Your task to perform on an android device: Open the map Image 0: 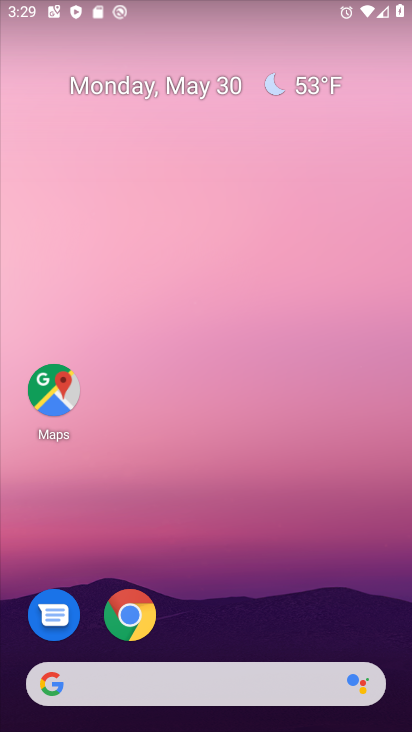
Step 0: click (57, 409)
Your task to perform on an android device: Open the map Image 1: 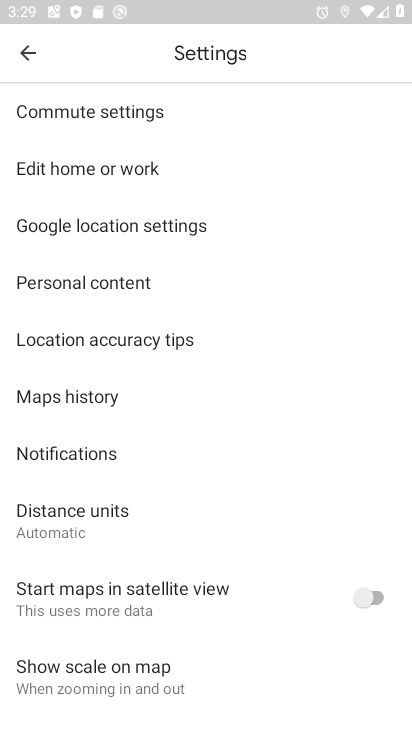
Step 1: click (37, 61)
Your task to perform on an android device: Open the map Image 2: 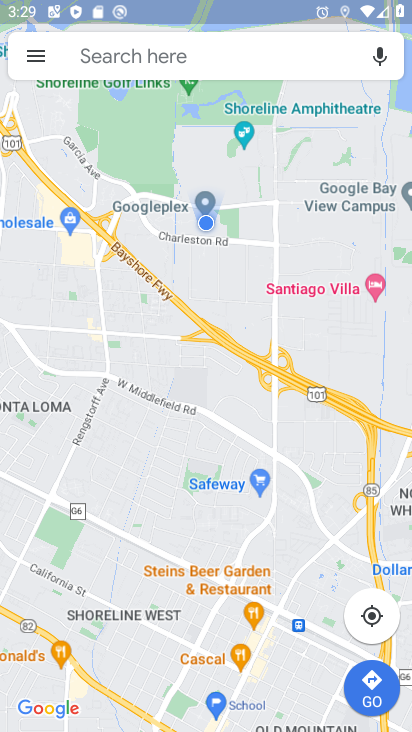
Step 2: task complete